Your task to perform on an android device: open wifi settings Image 0: 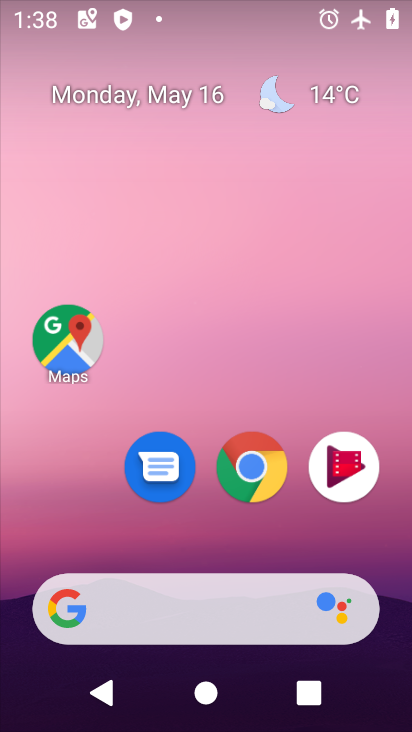
Step 0: drag from (244, 536) to (269, 135)
Your task to perform on an android device: open wifi settings Image 1: 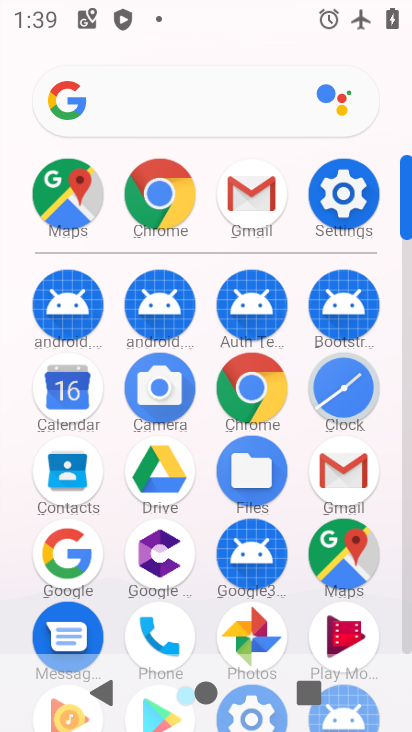
Step 1: click (324, 198)
Your task to perform on an android device: open wifi settings Image 2: 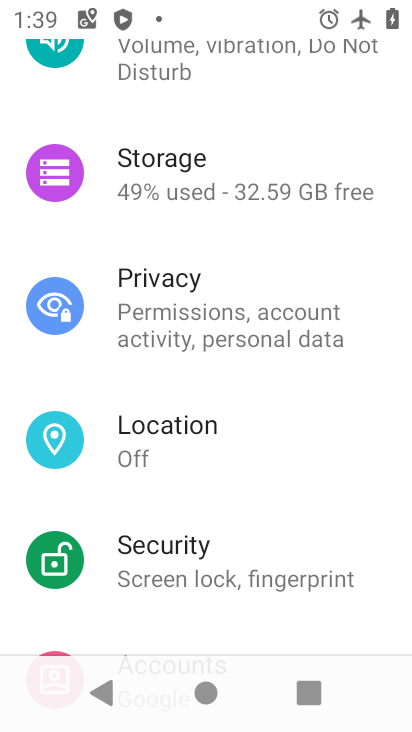
Step 2: drag from (210, 151) to (168, 586)
Your task to perform on an android device: open wifi settings Image 3: 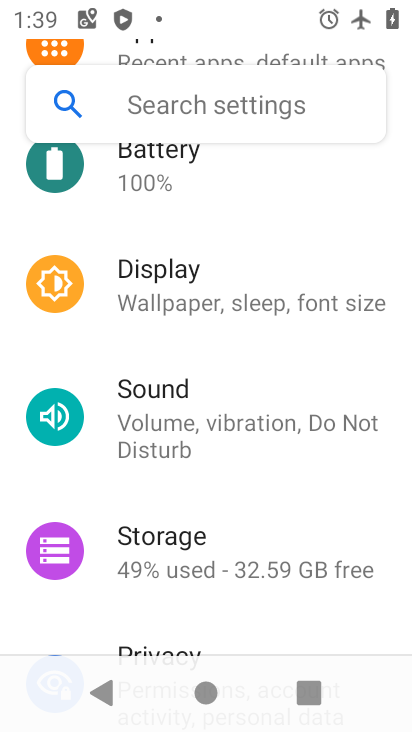
Step 3: drag from (234, 242) to (189, 584)
Your task to perform on an android device: open wifi settings Image 4: 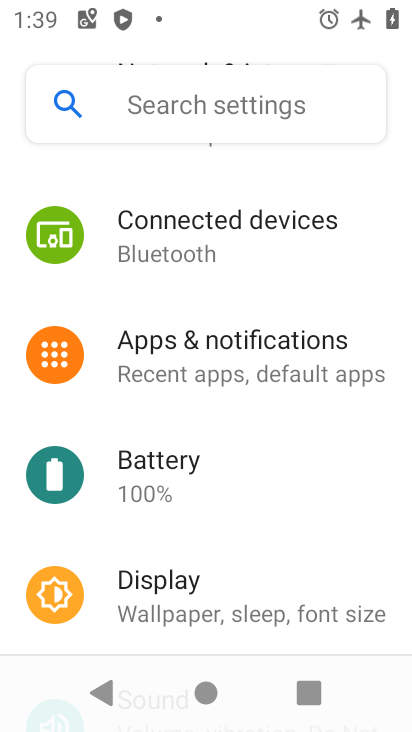
Step 4: drag from (244, 192) to (221, 553)
Your task to perform on an android device: open wifi settings Image 5: 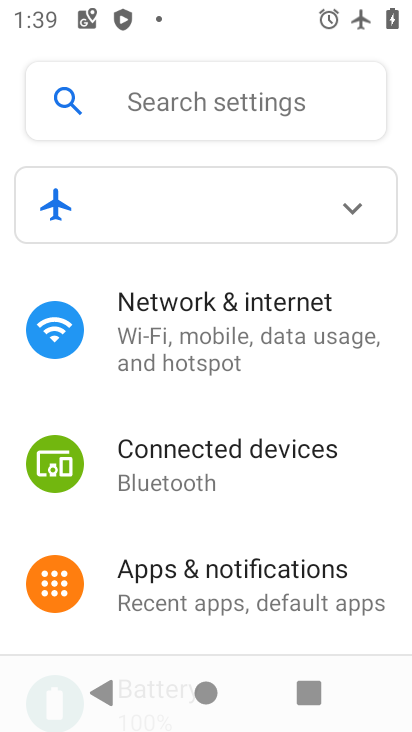
Step 5: click (225, 306)
Your task to perform on an android device: open wifi settings Image 6: 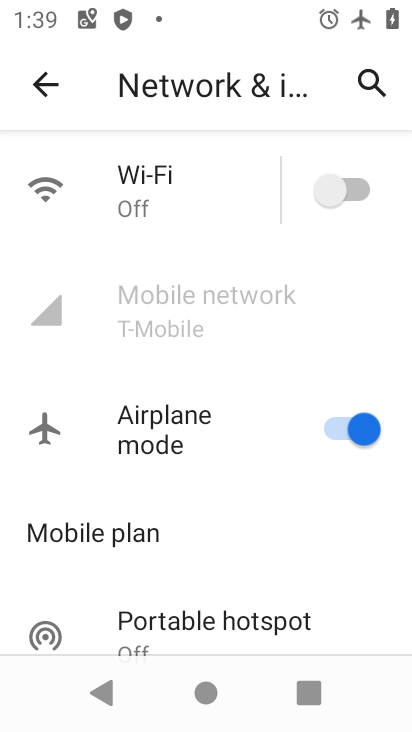
Step 6: click (320, 189)
Your task to perform on an android device: open wifi settings Image 7: 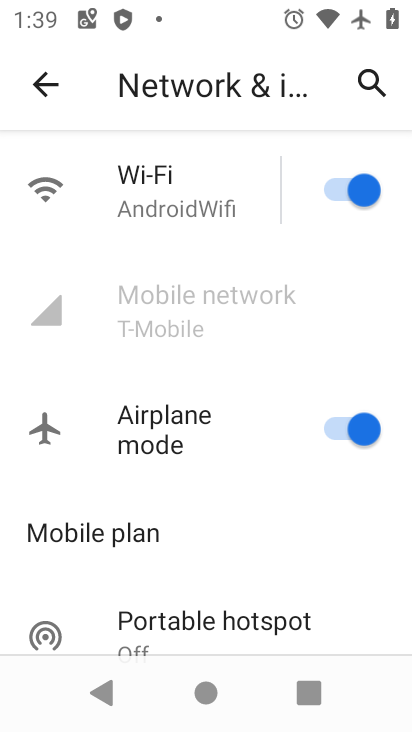
Step 7: task complete